Your task to perform on an android device: visit the assistant section in the google photos Image 0: 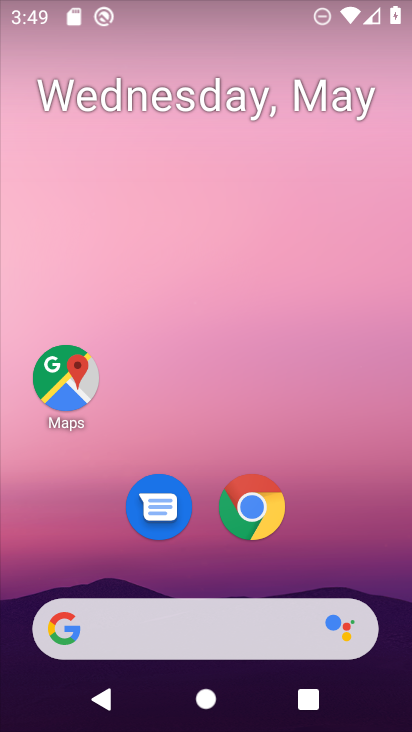
Step 0: drag from (187, 580) to (246, 91)
Your task to perform on an android device: visit the assistant section in the google photos Image 1: 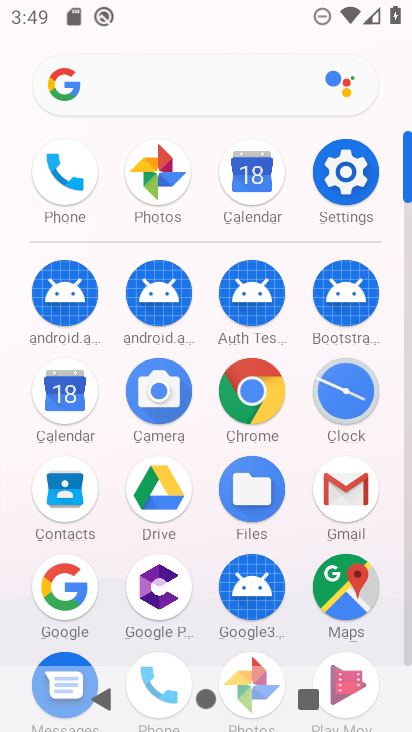
Step 1: drag from (253, 612) to (275, 242)
Your task to perform on an android device: visit the assistant section in the google photos Image 2: 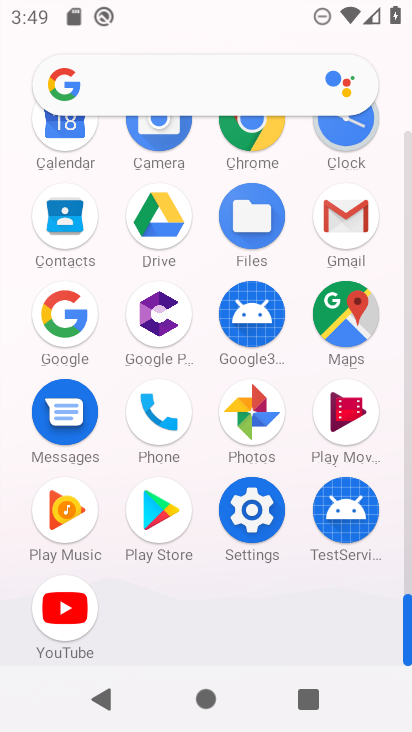
Step 2: click (250, 411)
Your task to perform on an android device: visit the assistant section in the google photos Image 3: 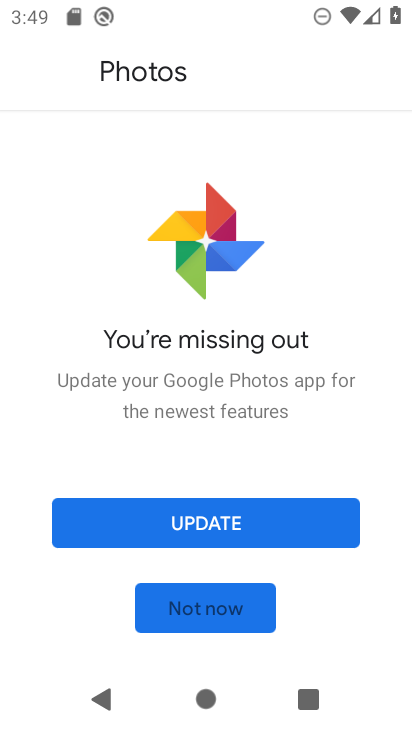
Step 3: click (217, 614)
Your task to perform on an android device: visit the assistant section in the google photos Image 4: 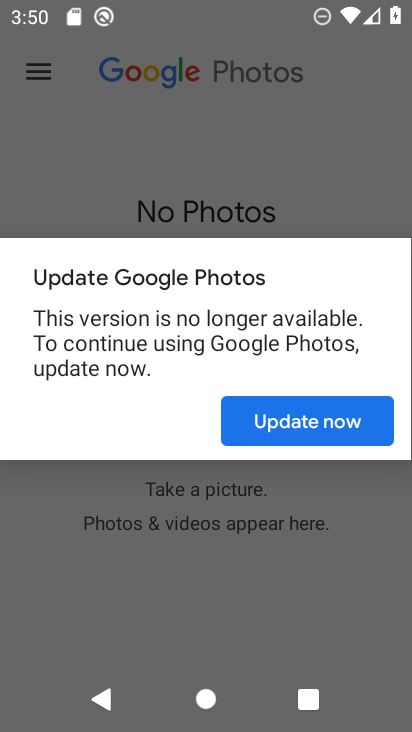
Step 4: click (286, 434)
Your task to perform on an android device: visit the assistant section in the google photos Image 5: 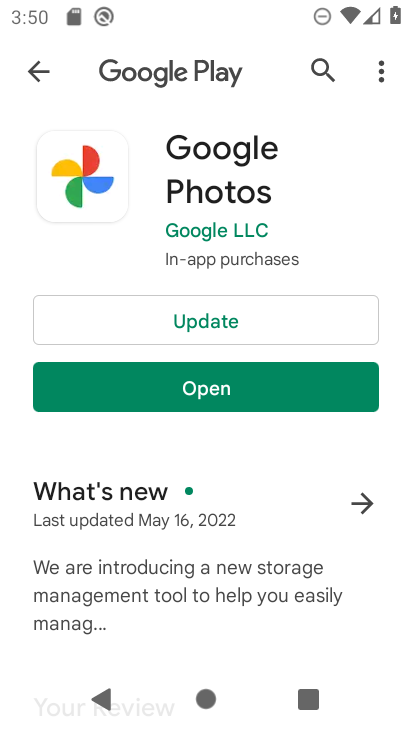
Step 5: click (218, 393)
Your task to perform on an android device: visit the assistant section in the google photos Image 6: 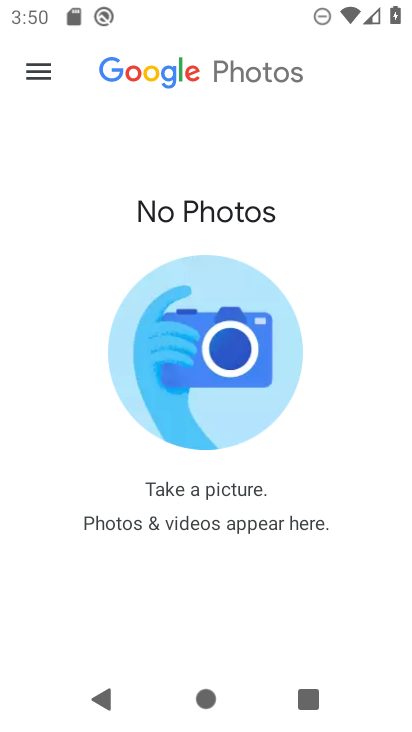
Step 6: click (45, 76)
Your task to perform on an android device: visit the assistant section in the google photos Image 7: 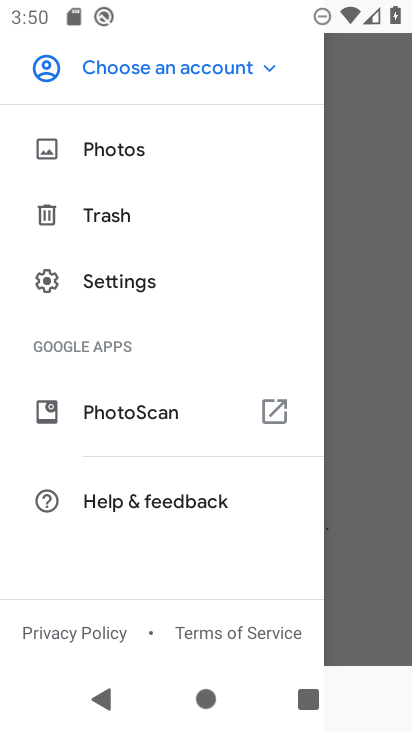
Step 7: task complete